Your task to perform on an android device: open the mobile data screen to see how much data has been used Image 0: 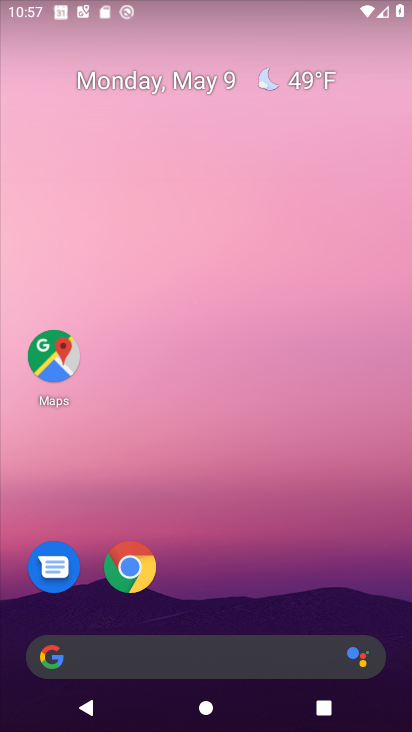
Step 0: drag from (188, 629) to (219, 222)
Your task to perform on an android device: open the mobile data screen to see how much data has been used Image 1: 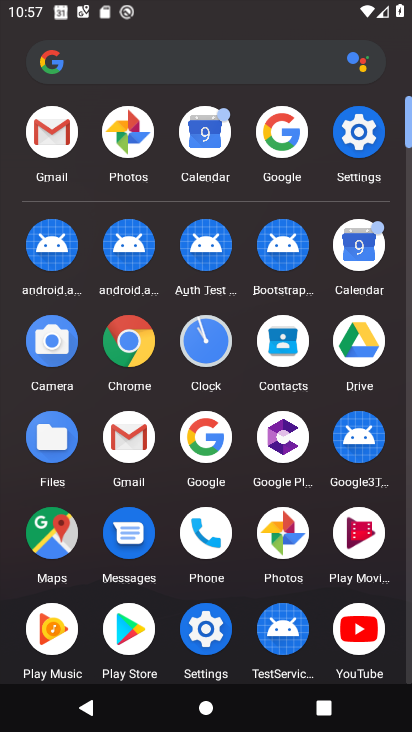
Step 1: click (367, 134)
Your task to perform on an android device: open the mobile data screen to see how much data has been used Image 2: 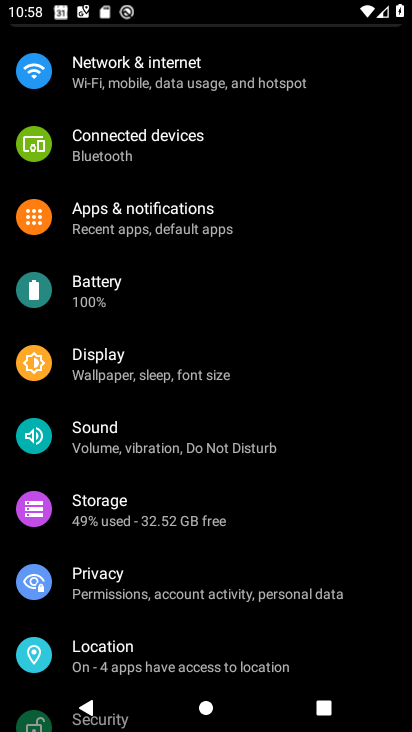
Step 2: click (146, 92)
Your task to perform on an android device: open the mobile data screen to see how much data has been used Image 3: 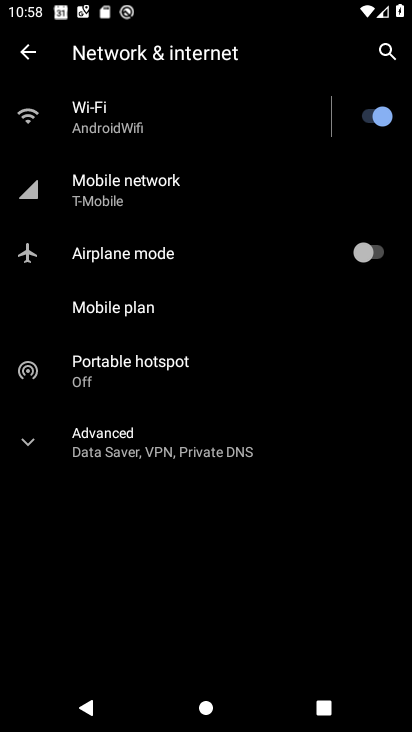
Step 3: click (160, 176)
Your task to perform on an android device: open the mobile data screen to see how much data has been used Image 4: 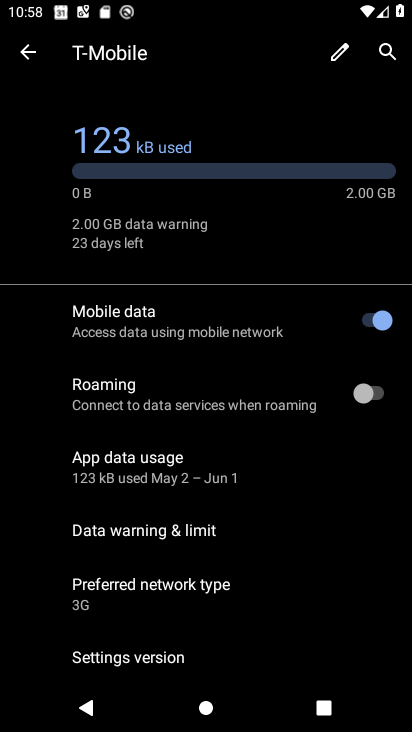
Step 4: click (150, 483)
Your task to perform on an android device: open the mobile data screen to see how much data has been used Image 5: 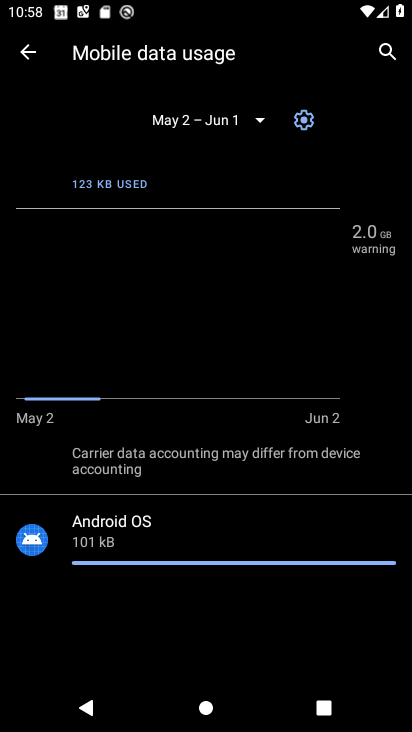
Step 5: task complete